Your task to perform on an android device: Add "dell xps" to the cart on amazon.com Image 0: 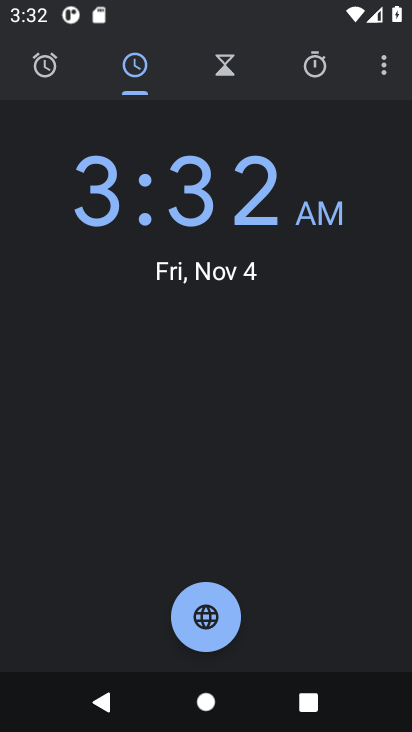
Step 0: press home button
Your task to perform on an android device: Add "dell xps" to the cart on amazon.com Image 1: 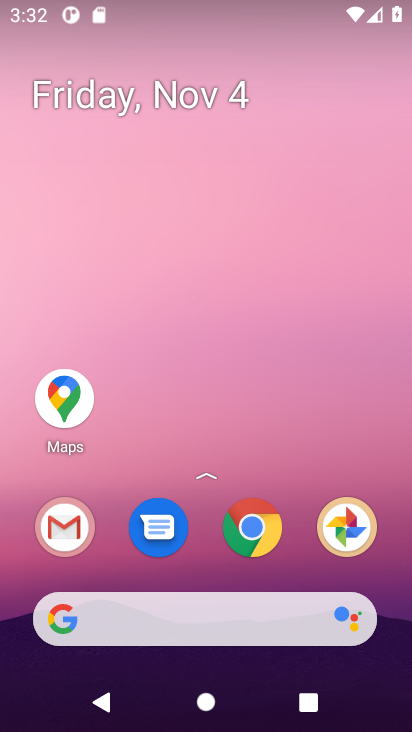
Step 1: click (252, 531)
Your task to perform on an android device: Add "dell xps" to the cart on amazon.com Image 2: 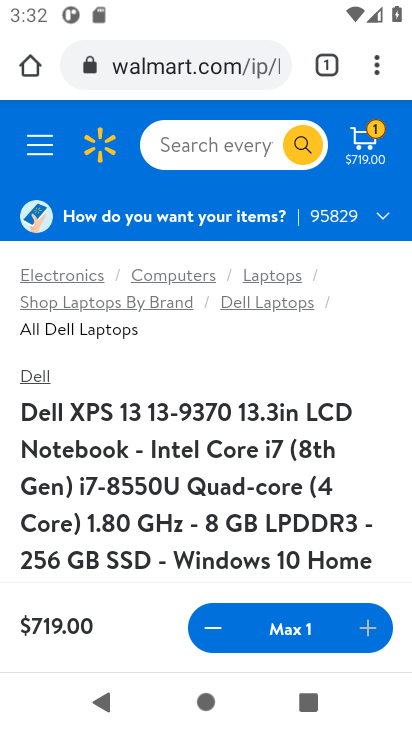
Step 2: click (204, 65)
Your task to perform on an android device: Add "dell xps" to the cart on amazon.com Image 3: 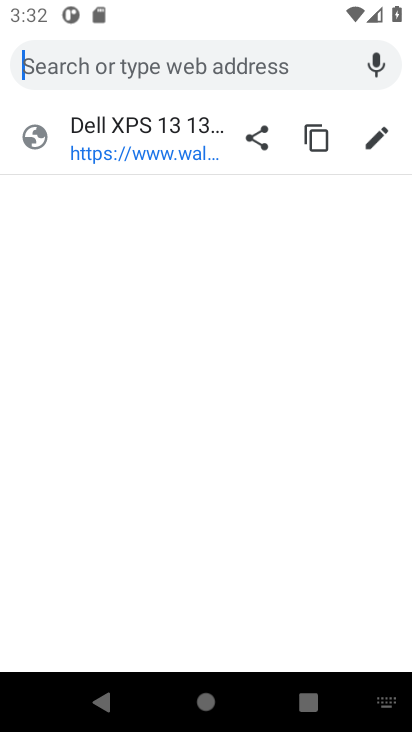
Step 3: type "amazon"
Your task to perform on an android device: Add "dell xps" to the cart on amazon.com Image 4: 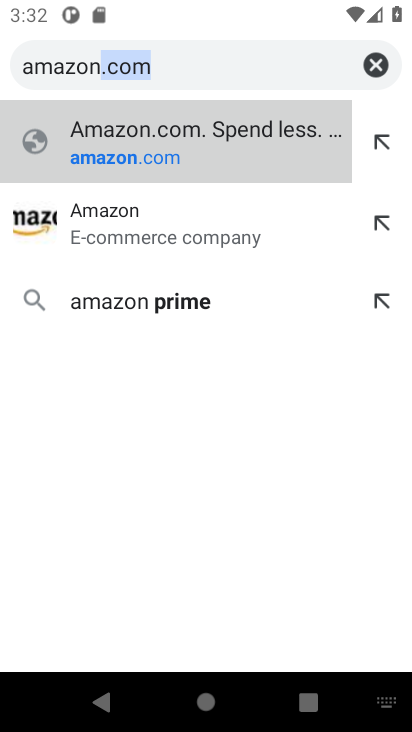
Step 4: click (203, 63)
Your task to perform on an android device: Add "dell xps" to the cart on amazon.com Image 5: 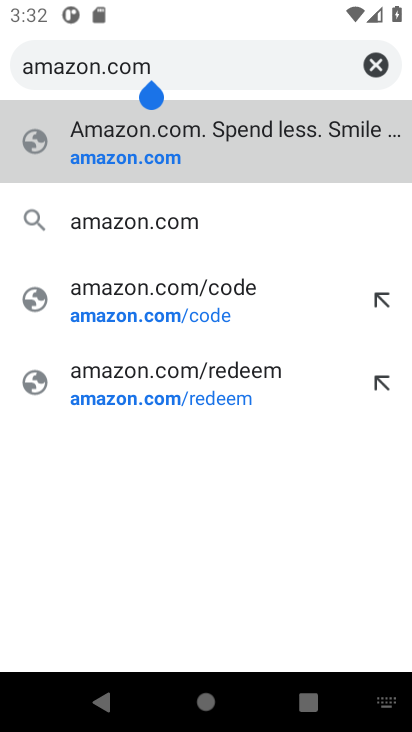
Step 5: click (181, 217)
Your task to perform on an android device: Add "dell xps" to the cart on amazon.com Image 6: 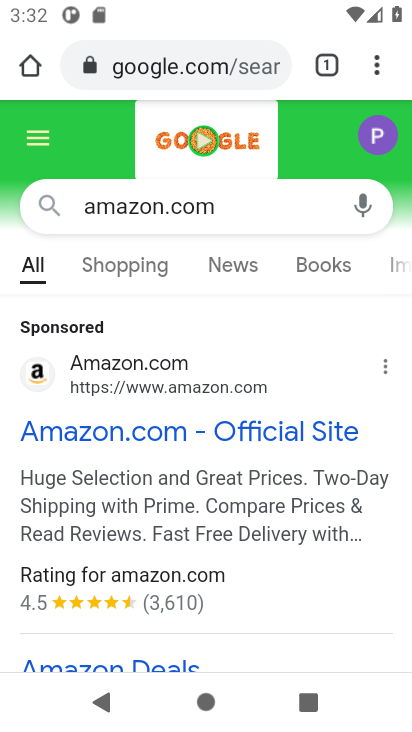
Step 6: click (179, 380)
Your task to perform on an android device: Add "dell xps" to the cart on amazon.com Image 7: 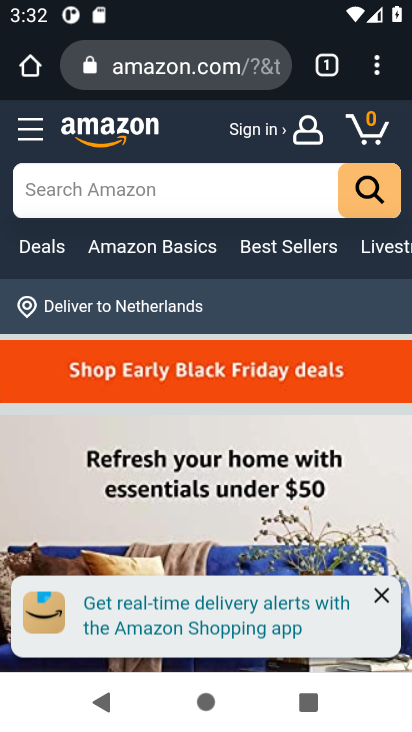
Step 7: click (203, 196)
Your task to perform on an android device: Add "dell xps" to the cart on amazon.com Image 8: 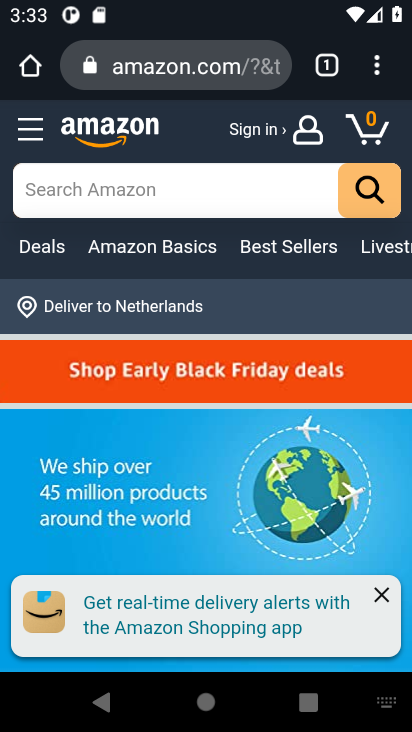
Step 8: type "dell xps"
Your task to perform on an android device: Add "dell xps" to the cart on amazon.com Image 9: 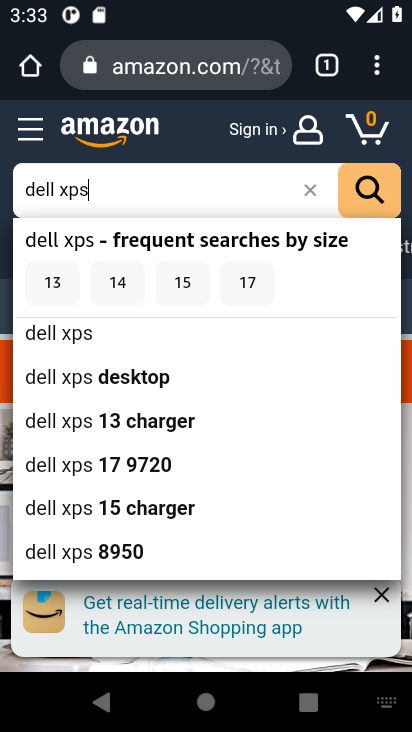
Step 9: click (91, 331)
Your task to perform on an android device: Add "dell xps" to the cart on amazon.com Image 10: 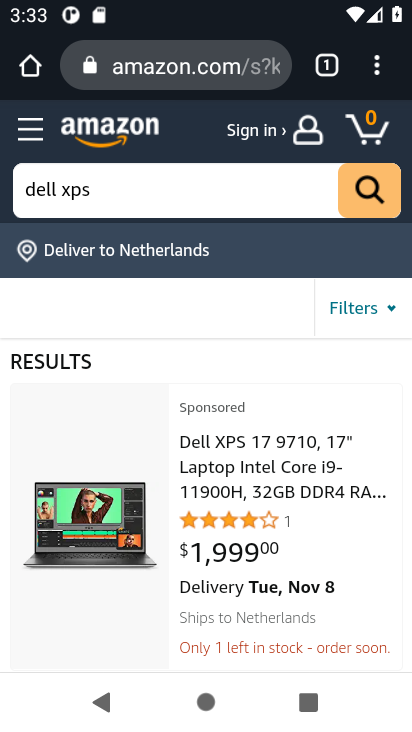
Step 10: click (130, 474)
Your task to perform on an android device: Add "dell xps" to the cart on amazon.com Image 11: 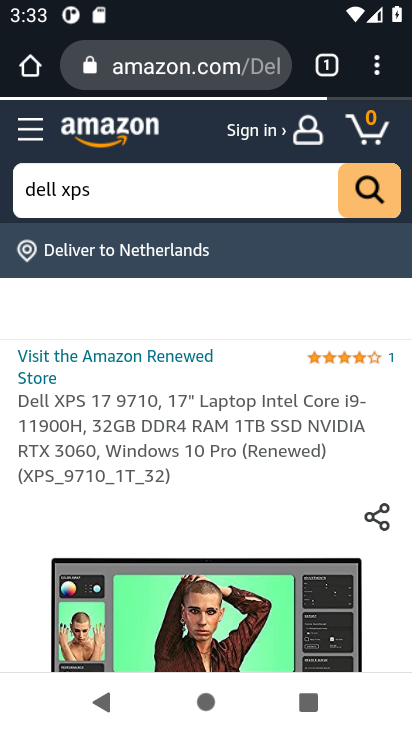
Step 11: drag from (310, 433) to (334, 239)
Your task to perform on an android device: Add "dell xps" to the cart on amazon.com Image 12: 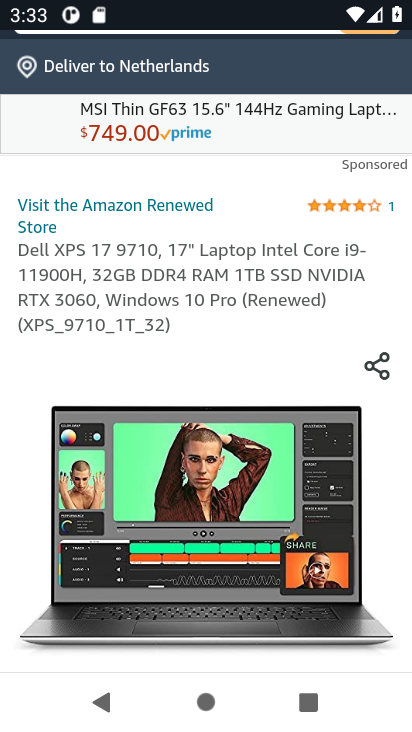
Step 12: drag from (243, 554) to (329, 215)
Your task to perform on an android device: Add "dell xps" to the cart on amazon.com Image 13: 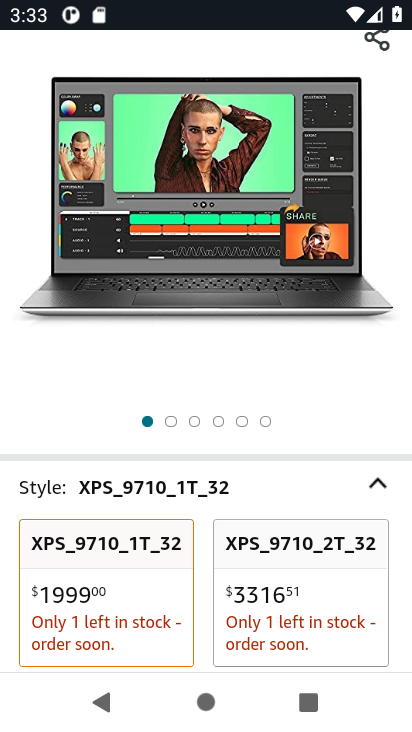
Step 13: drag from (317, 616) to (359, 306)
Your task to perform on an android device: Add "dell xps" to the cart on amazon.com Image 14: 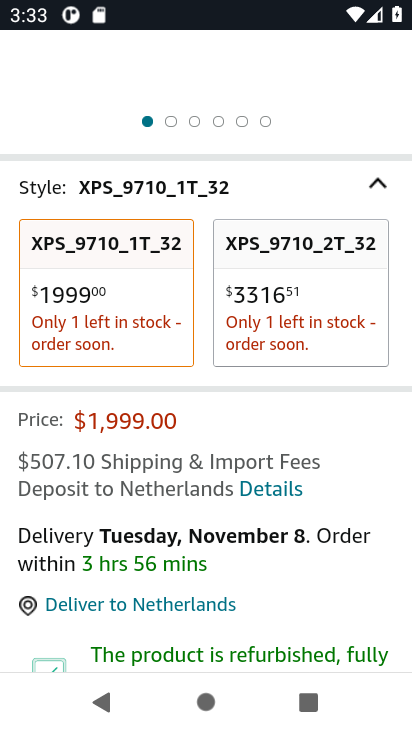
Step 14: drag from (314, 581) to (288, 223)
Your task to perform on an android device: Add "dell xps" to the cart on amazon.com Image 15: 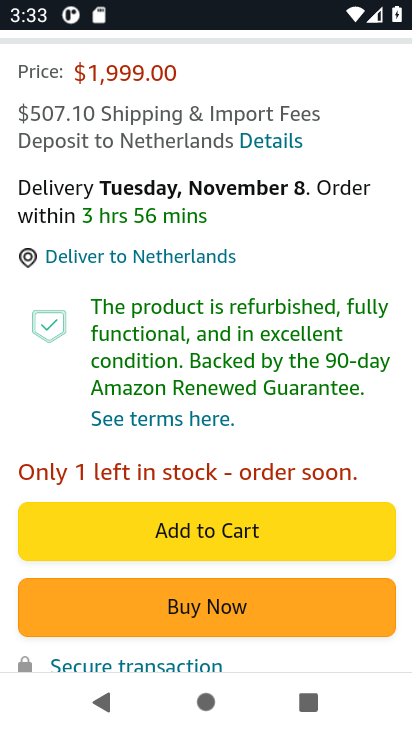
Step 15: click (272, 534)
Your task to perform on an android device: Add "dell xps" to the cart on amazon.com Image 16: 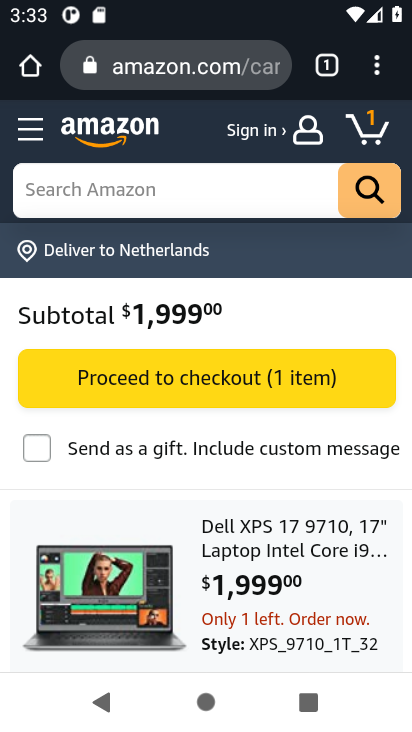
Step 16: task complete